Your task to perform on an android device: turn on javascript in the chrome app Image 0: 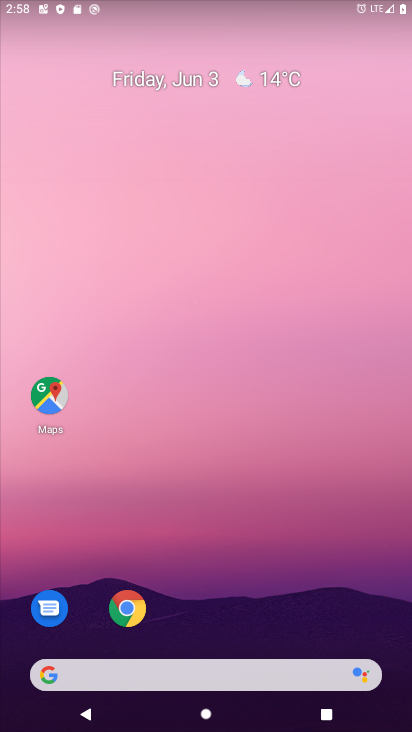
Step 0: click (144, 614)
Your task to perform on an android device: turn on javascript in the chrome app Image 1: 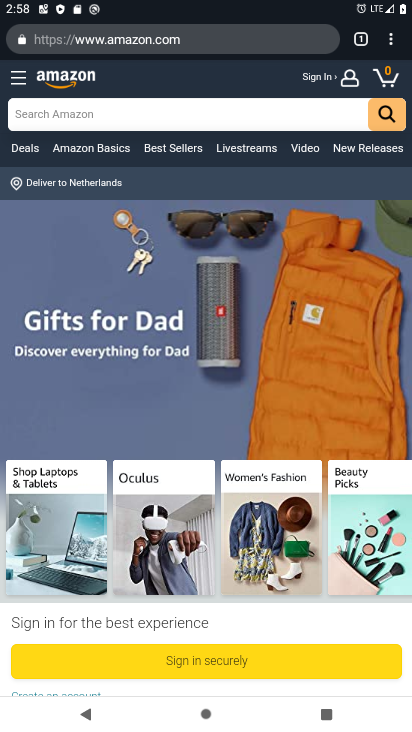
Step 1: drag from (393, 40) to (261, 519)
Your task to perform on an android device: turn on javascript in the chrome app Image 2: 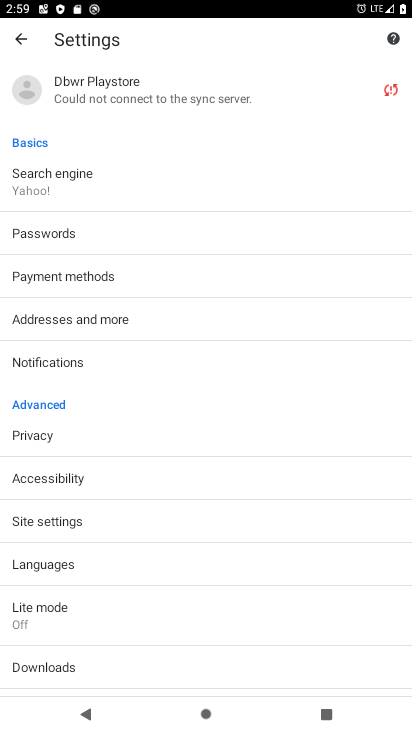
Step 2: click (126, 518)
Your task to perform on an android device: turn on javascript in the chrome app Image 3: 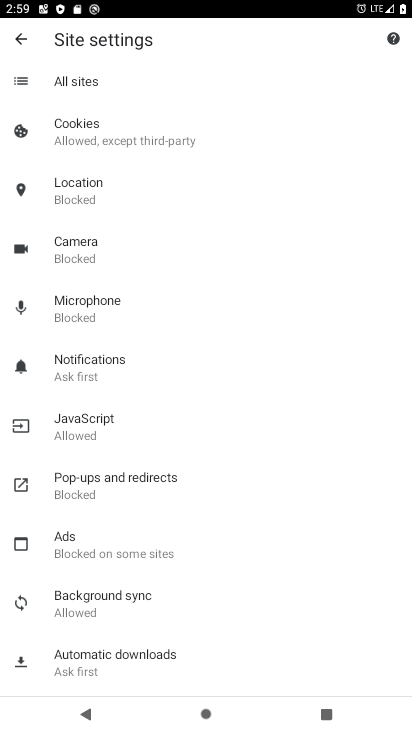
Step 3: click (107, 434)
Your task to perform on an android device: turn on javascript in the chrome app Image 4: 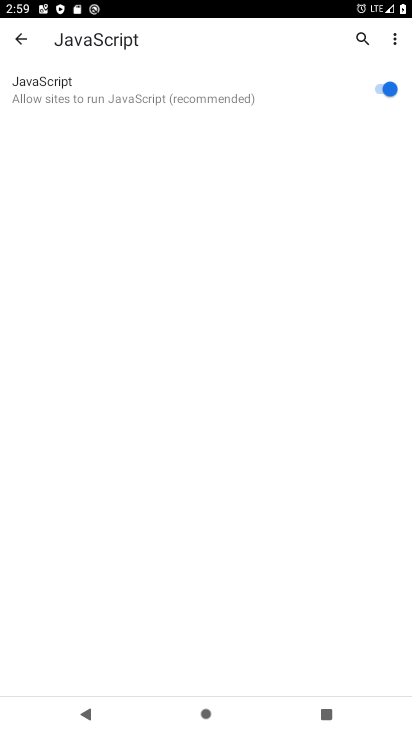
Step 4: task complete